Your task to perform on an android device: Open calendar and show me the second week of next month Image 0: 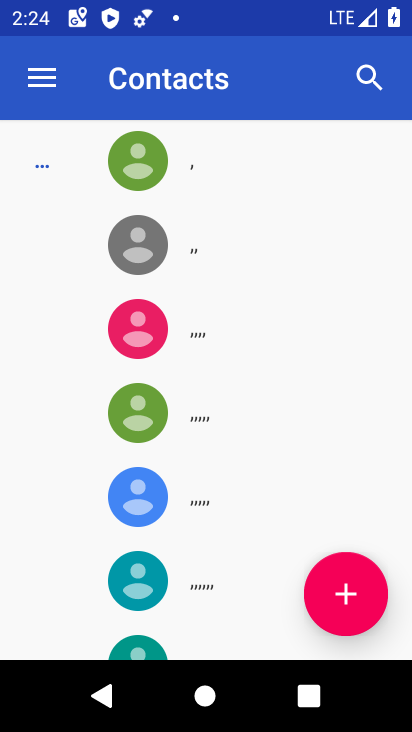
Step 0: press back button
Your task to perform on an android device: Open calendar and show me the second week of next month Image 1: 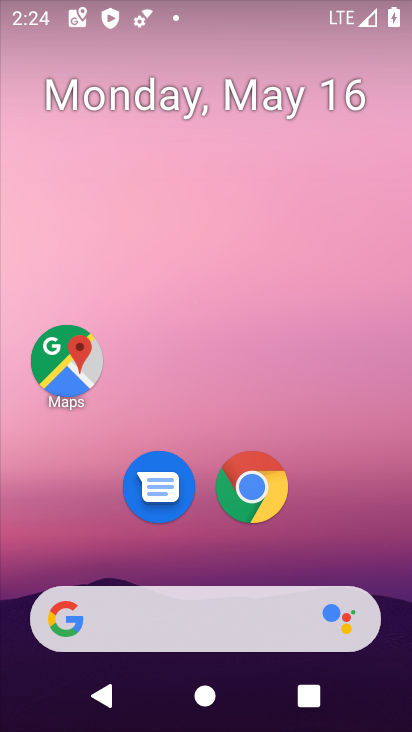
Step 1: drag from (331, 522) to (265, 73)
Your task to perform on an android device: Open calendar and show me the second week of next month Image 2: 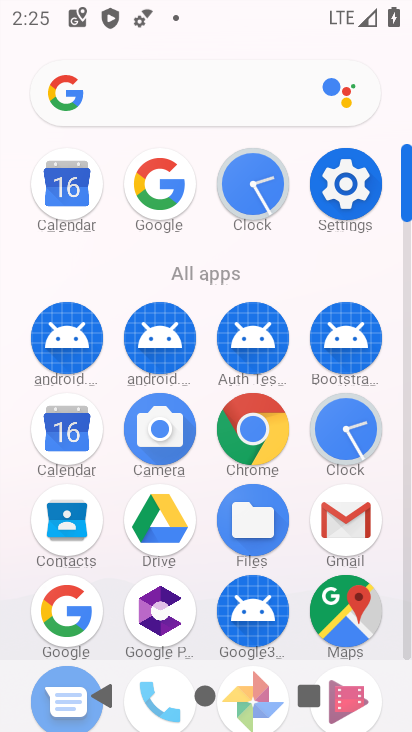
Step 2: click (68, 434)
Your task to perform on an android device: Open calendar and show me the second week of next month Image 3: 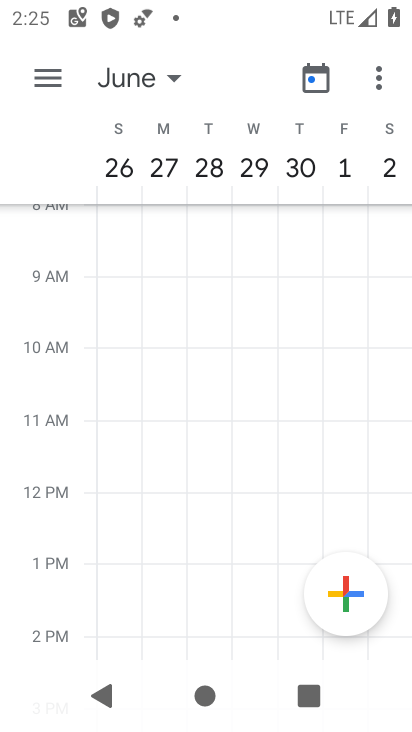
Step 3: click (315, 81)
Your task to perform on an android device: Open calendar and show me the second week of next month Image 4: 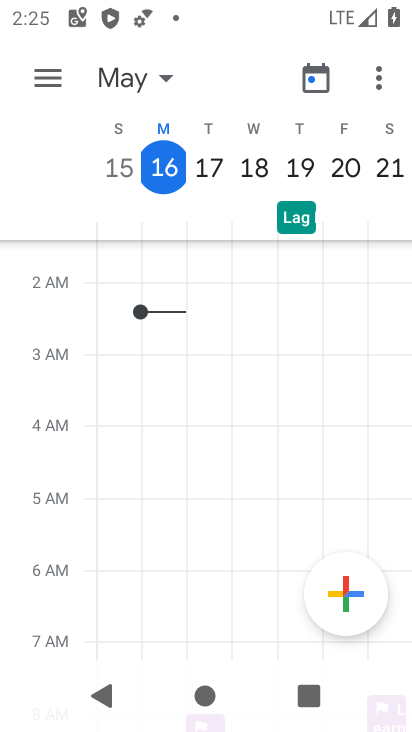
Step 4: click (166, 76)
Your task to perform on an android device: Open calendar and show me the second week of next month Image 5: 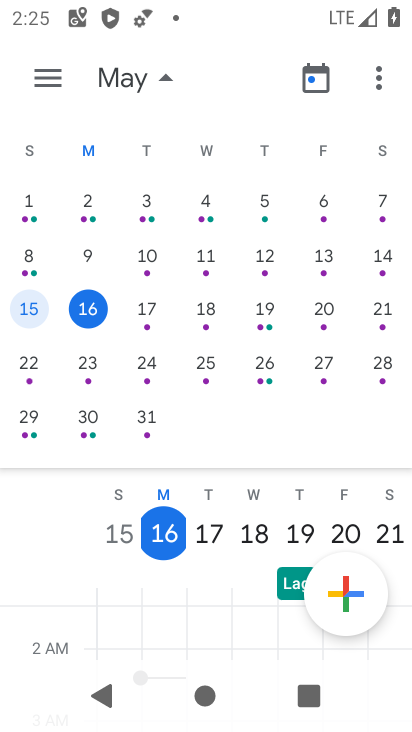
Step 5: drag from (348, 306) to (17, 349)
Your task to perform on an android device: Open calendar and show me the second week of next month Image 6: 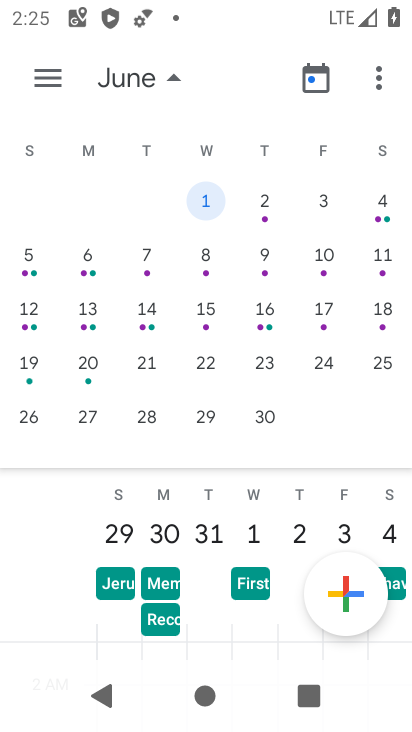
Step 6: click (84, 318)
Your task to perform on an android device: Open calendar and show me the second week of next month Image 7: 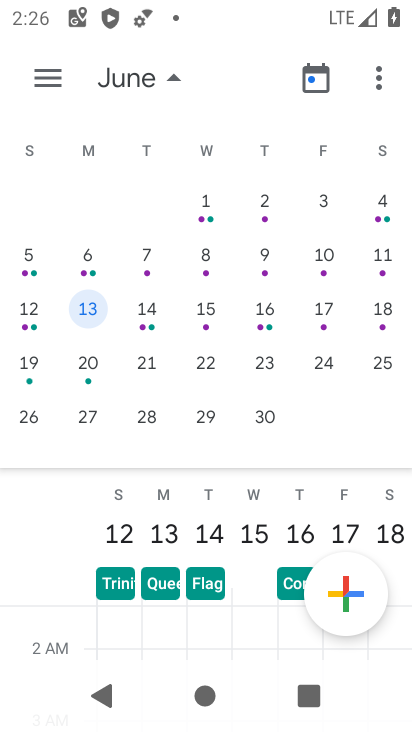
Step 7: click (49, 85)
Your task to perform on an android device: Open calendar and show me the second week of next month Image 8: 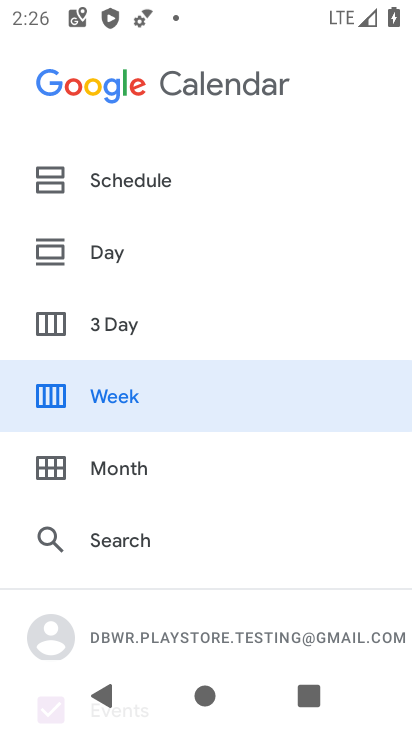
Step 8: click (136, 391)
Your task to perform on an android device: Open calendar and show me the second week of next month Image 9: 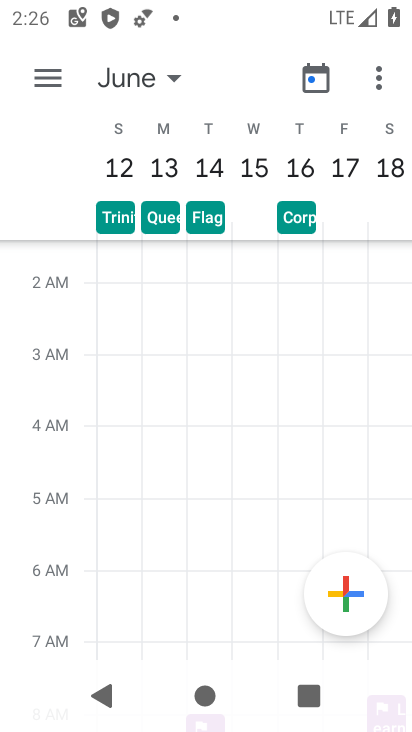
Step 9: task complete